Your task to perform on an android device: Empty the shopping cart on costco. Search for acer nitro on costco, select the first entry, add it to the cart, then select checkout. Image 0: 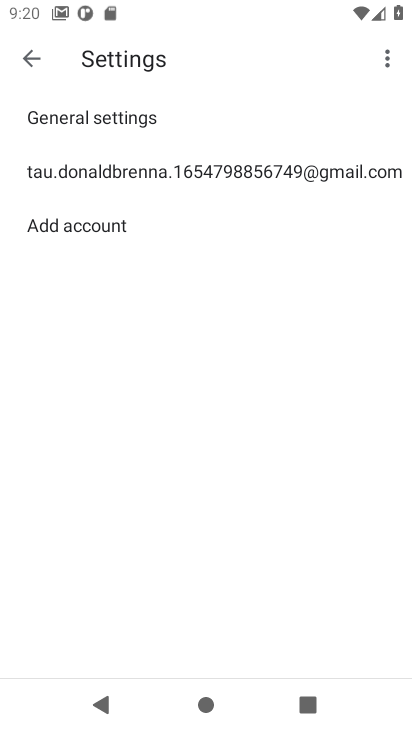
Step 0: press home button
Your task to perform on an android device: Empty the shopping cart on costco. Search for acer nitro on costco, select the first entry, add it to the cart, then select checkout. Image 1: 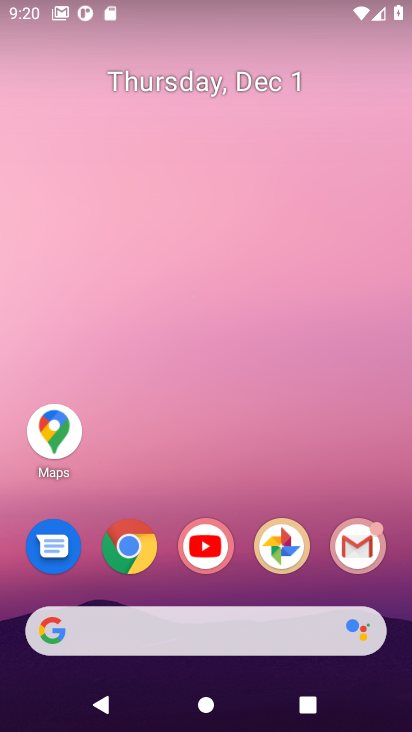
Step 1: click (142, 560)
Your task to perform on an android device: Empty the shopping cart on costco. Search for acer nitro on costco, select the first entry, add it to the cart, then select checkout. Image 2: 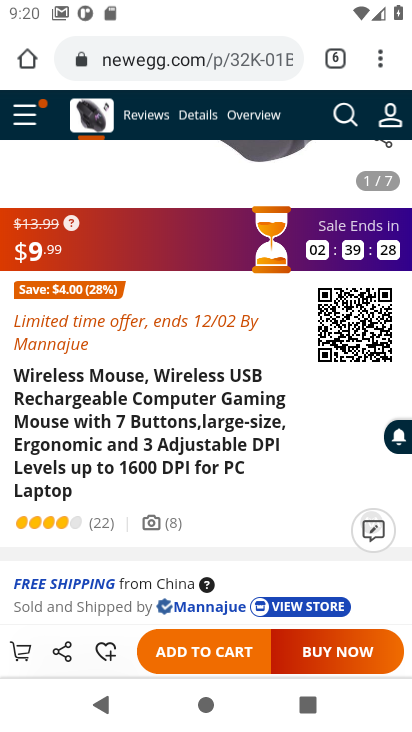
Step 2: click (188, 62)
Your task to perform on an android device: Empty the shopping cart on costco. Search for acer nitro on costco, select the first entry, add it to the cart, then select checkout. Image 3: 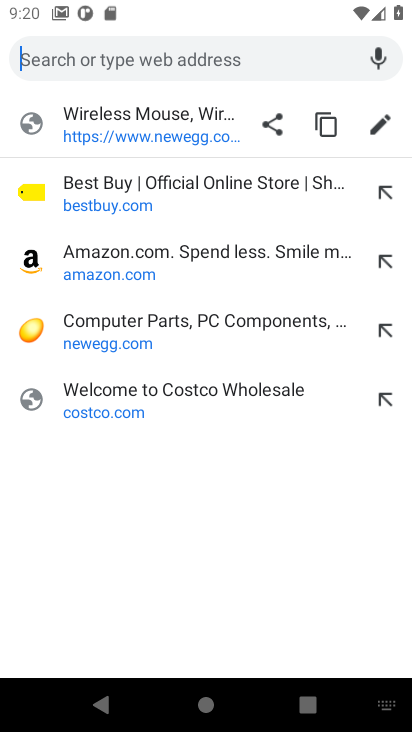
Step 3: click (96, 390)
Your task to perform on an android device: Empty the shopping cart on costco. Search for acer nitro on costco, select the first entry, add it to the cart, then select checkout. Image 4: 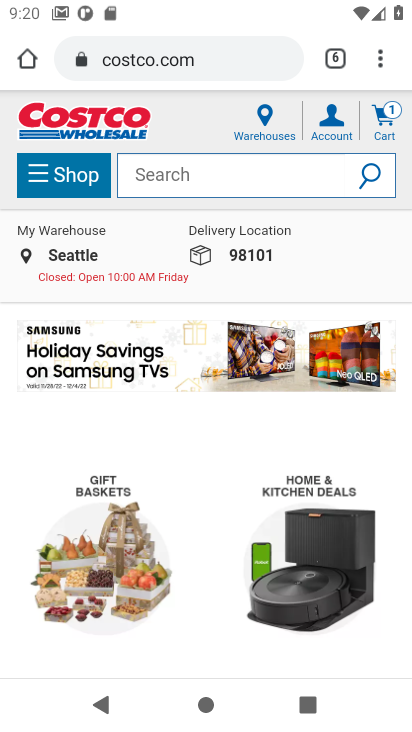
Step 4: click (380, 125)
Your task to perform on an android device: Empty the shopping cart on costco. Search for acer nitro on costco, select the first entry, add it to the cart, then select checkout. Image 5: 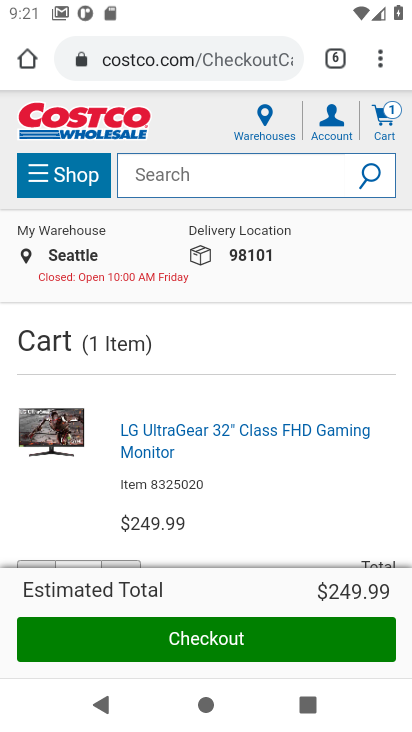
Step 5: drag from (229, 458) to (227, 147)
Your task to perform on an android device: Empty the shopping cart on costco. Search for acer nitro on costco, select the first entry, add it to the cart, then select checkout. Image 6: 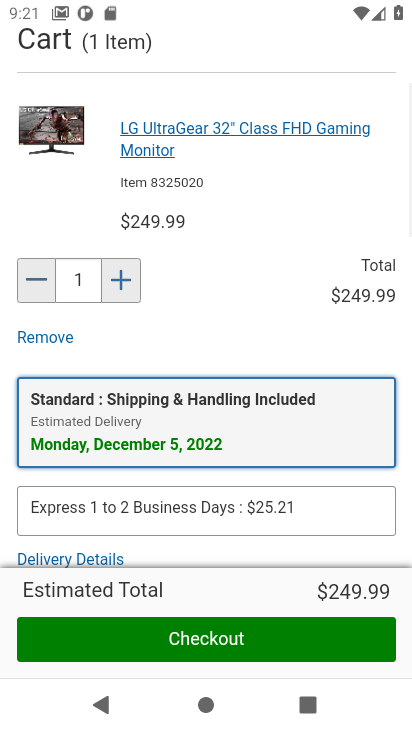
Step 6: drag from (221, 371) to (220, 122)
Your task to perform on an android device: Empty the shopping cart on costco. Search for acer nitro on costco, select the first entry, add it to the cart, then select checkout. Image 7: 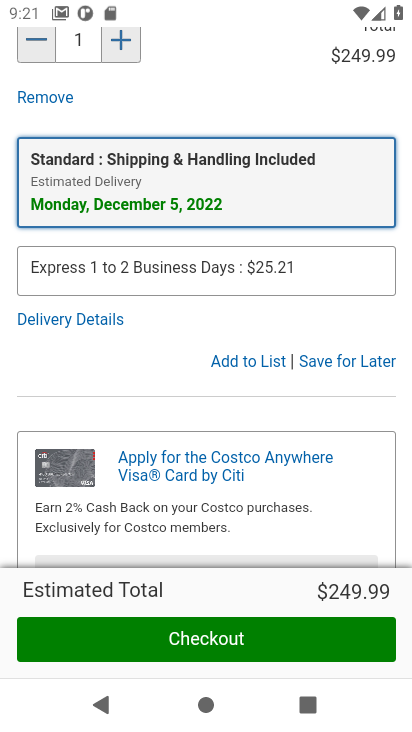
Step 7: click (326, 362)
Your task to perform on an android device: Empty the shopping cart on costco. Search for acer nitro on costco, select the first entry, add it to the cart, then select checkout. Image 8: 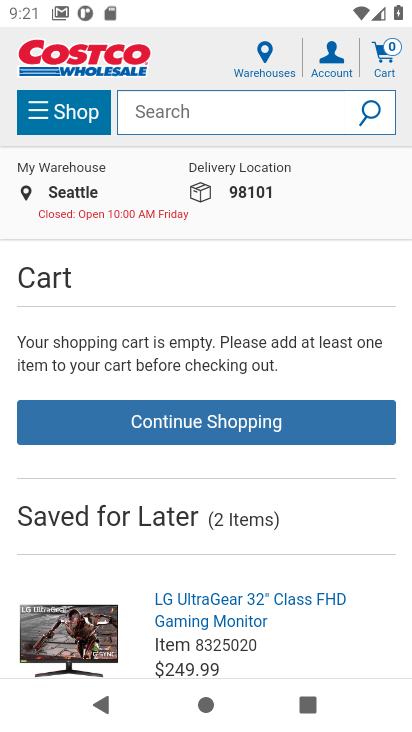
Step 8: click (187, 107)
Your task to perform on an android device: Empty the shopping cart on costco. Search for acer nitro on costco, select the first entry, add it to the cart, then select checkout. Image 9: 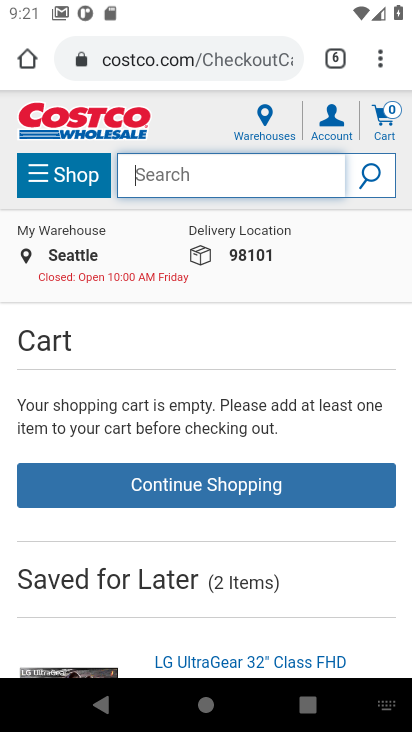
Step 9: type "acer nitro"
Your task to perform on an android device: Empty the shopping cart on costco. Search for acer nitro on costco, select the first entry, add it to the cart, then select checkout. Image 10: 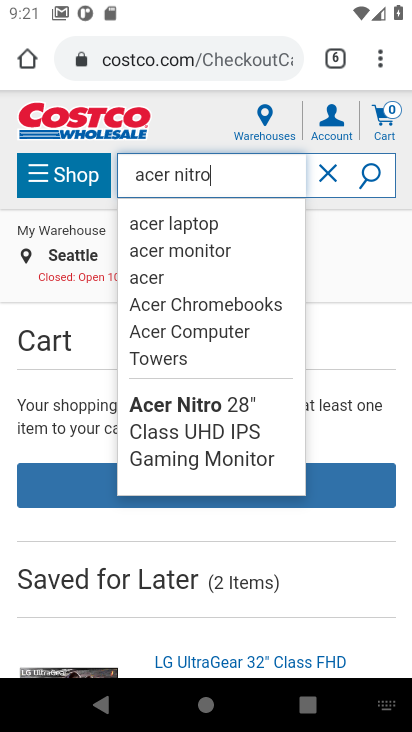
Step 10: click (373, 176)
Your task to perform on an android device: Empty the shopping cart on costco. Search for acer nitro on costco, select the first entry, add it to the cart, then select checkout. Image 11: 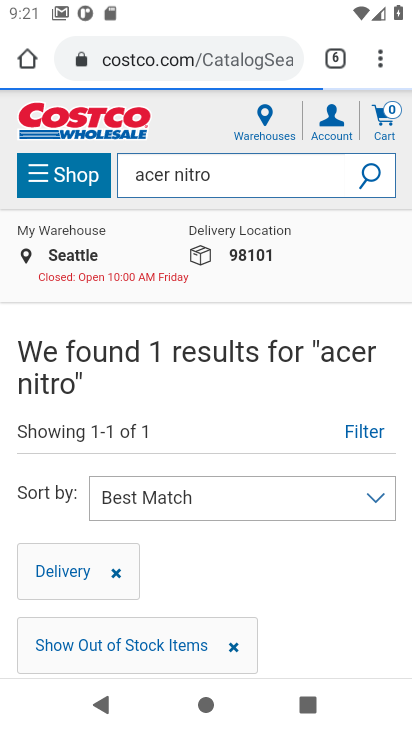
Step 11: drag from (204, 386) to (202, 146)
Your task to perform on an android device: Empty the shopping cart on costco. Search for acer nitro on costco, select the first entry, add it to the cart, then select checkout. Image 12: 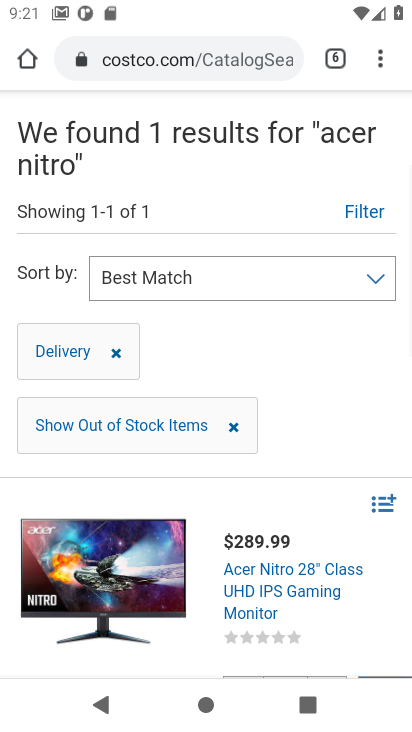
Step 12: drag from (199, 356) to (213, 97)
Your task to perform on an android device: Empty the shopping cart on costco. Search for acer nitro on costco, select the first entry, add it to the cart, then select checkout. Image 13: 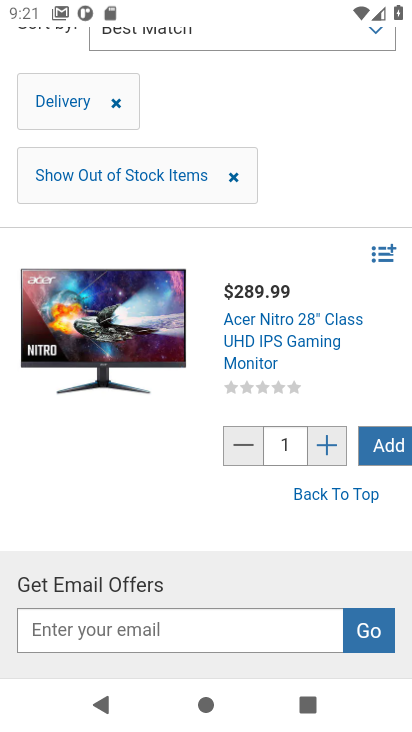
Step 13: click (391, 456)
Your task to perform on an android device: Empty the shopping cart on costco. Search for acer nitro on costco, select the first entry, add it to the cart, then select checkout. Image 14: 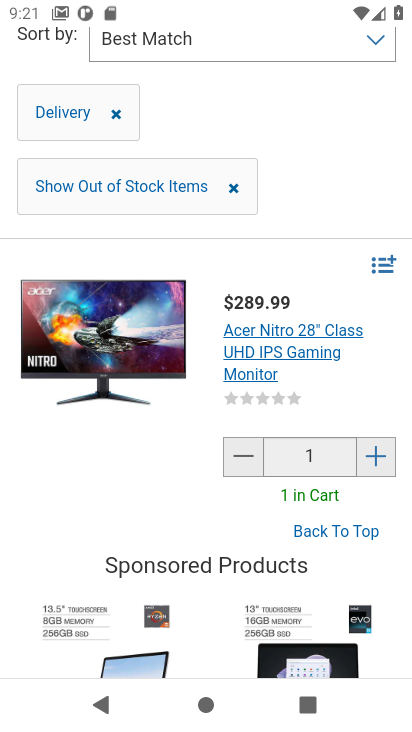
Step 14: drag from (265, 134) to (289, 439)
Your task to perform on an android device: Empty the shopping cart on costco. Search for acer nitro on costco, select the first entry, add it to the cart, then select checkout. Image 15: 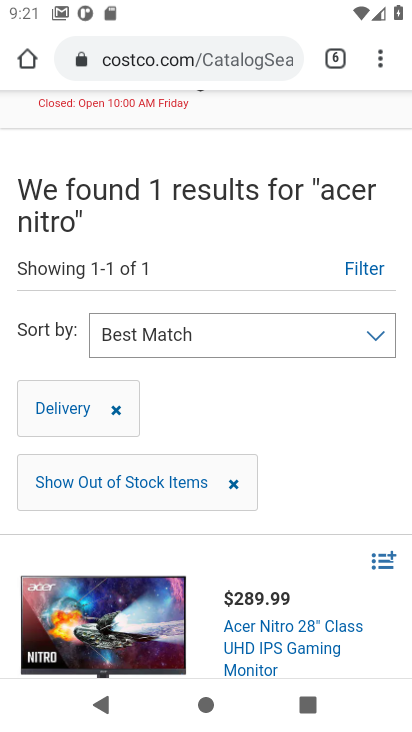
Step 15: drag from (293, 125) to (278, 391)
Your task to perform on an android device: Empty the shopping cart on costco. Search for acer nitro on costco, select the first entry, add it to the cart, then select checkout. Image 16: 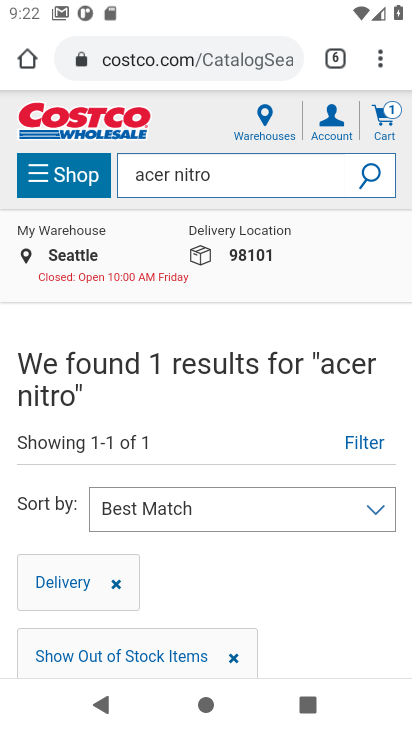
Step 16: click (376, 124)
Your task to perform on an android device: Empty the shopping cart on costco. Search for acer nitro on costco, select the first entry, add it to the cart, then select checkout. Image 17: 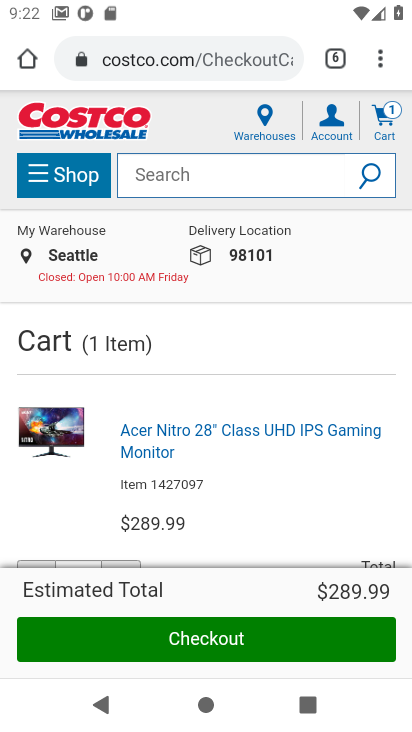
Step 17: click (195, 635)
Your task to perform on an android device: Empty the shopping cart on costco. Search for acer nitro on costco, select the first entry, add it to the cart, then select checkout. Image 18: 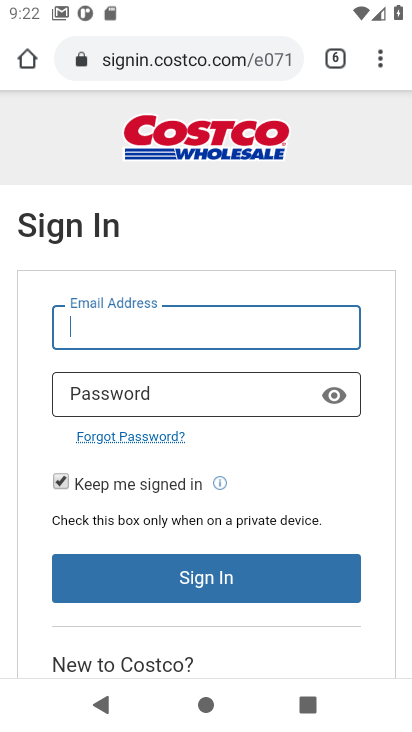
Step 18: task complete